Your task to perform on an android device: Do I have any events this weekend? Image 0: 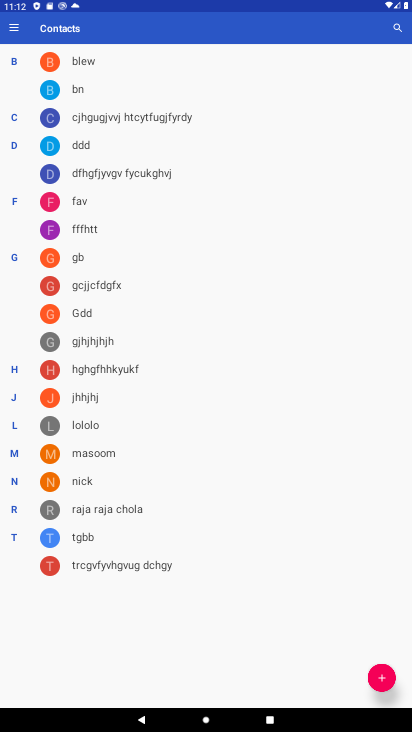
Step 0: press home button
Your task to perform on an android device: Do I have any events this weekend? Image 1: 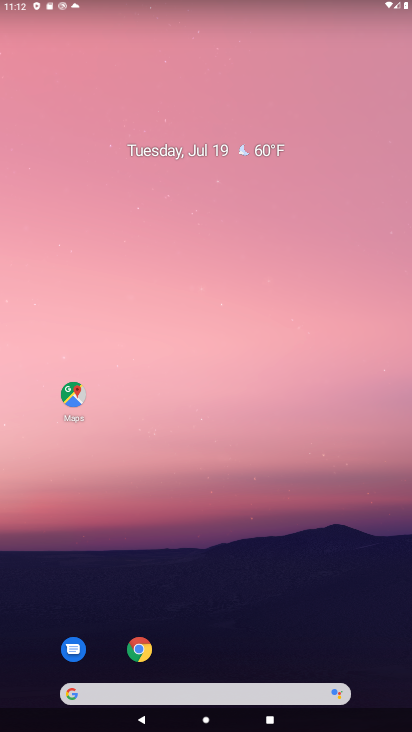
Step 1: drag from (214, 577) to (204, 305)
Your task to perform on an android device: Do I have any events this weekend? Image 2: 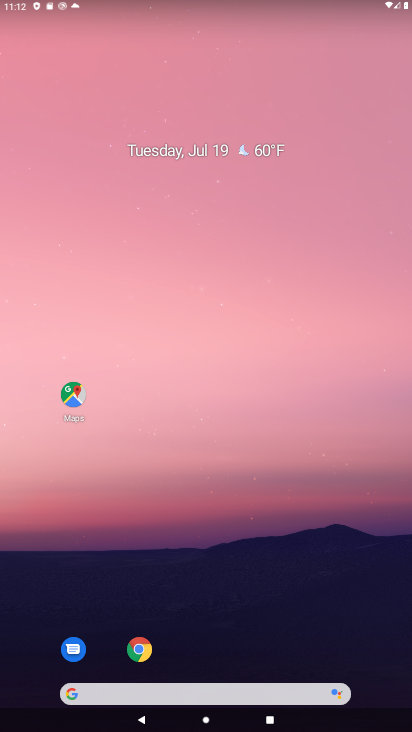
Step 2: drag from (178, 664) to (176, 189)
Your task to perform on an android device: Do I have any events this weekend? Image 3: 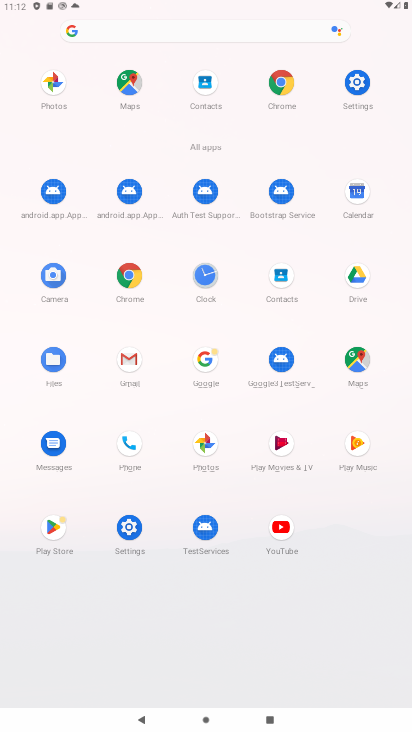
Step 3: click (356, 186)
Your task to perform on an android device: Do I have any events this weekend? Image 4: 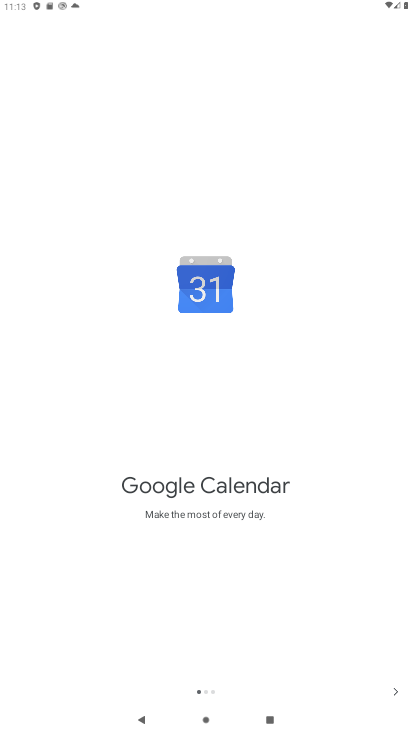
Step 4: drag from (328, 615) to (14, 651)
Your task to perform on an android device: Do I have any events this weekend? Image 5: 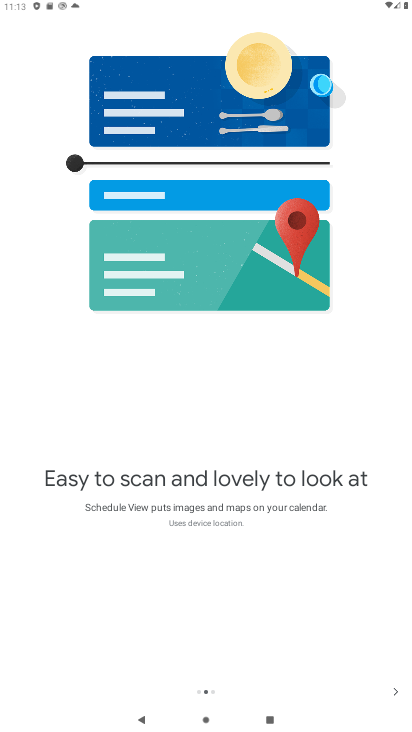
Step 5: drag from (288, 585) to (10, 721)
Your task to perform on an android device: Do I have any events this weekend? Image 6: 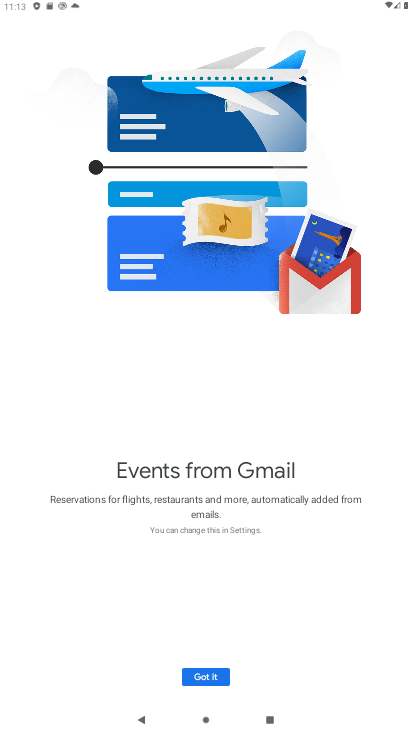
Step 6: click (210, 672)
Your task to perform on an android device: Do I have any events this weekend? Image 7: 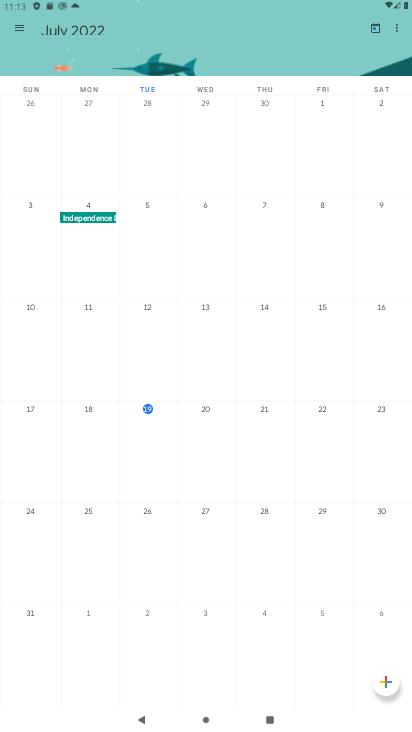
Step 7: task complete